Your task to perform on an android device: Go to Wikipedia Image 0: 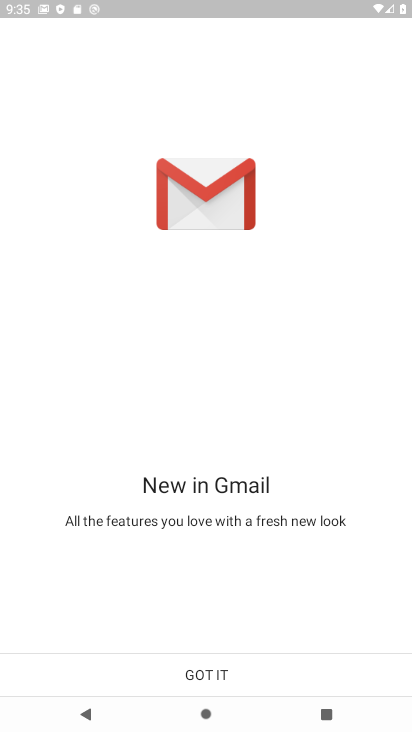
Step 0: press home button
Your task to perform on an android device: Go to Wikipedia Image 1: 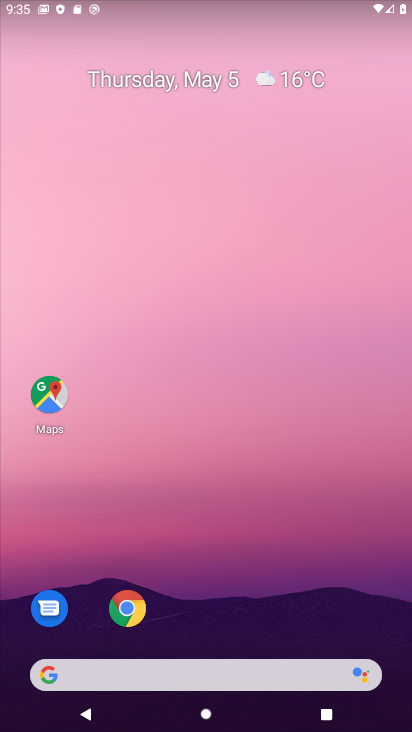
Step 1: drag from (267, 592) to (269, 104)
Your task to perform on an android device: Go to Wikipedia Image 2: 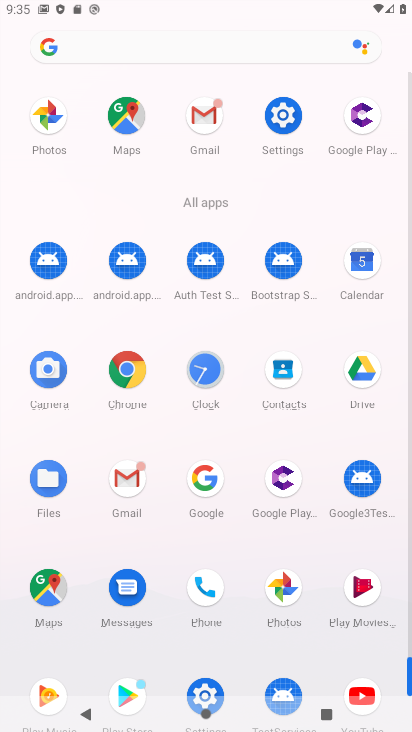
Step 2: click (118, 369)
Your task to perform on an android device: Go to Wikipedia Image 3: 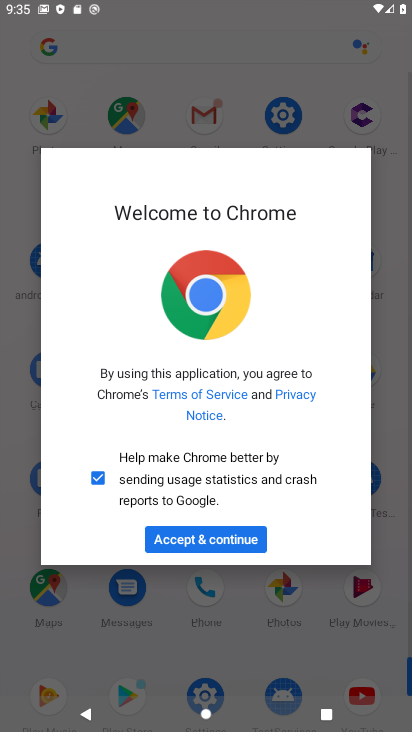
Step 3: click (229, 539)
Your task to perform on an android device: Go to Wikipedia Image 4: 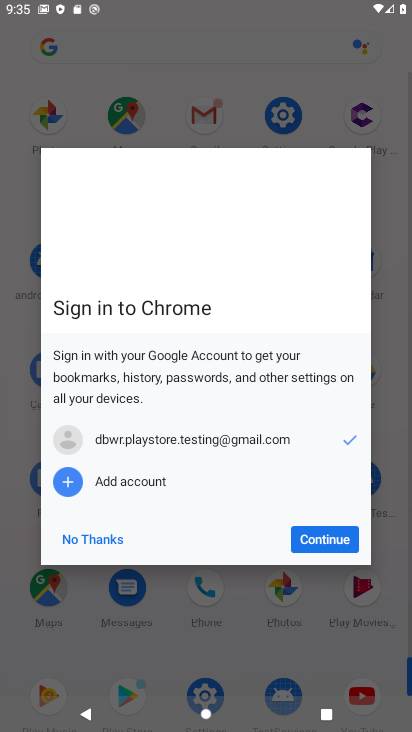
Step 4: click (325, 545)
Your task to perform on an android device: Go to Wikipedia Image 5: 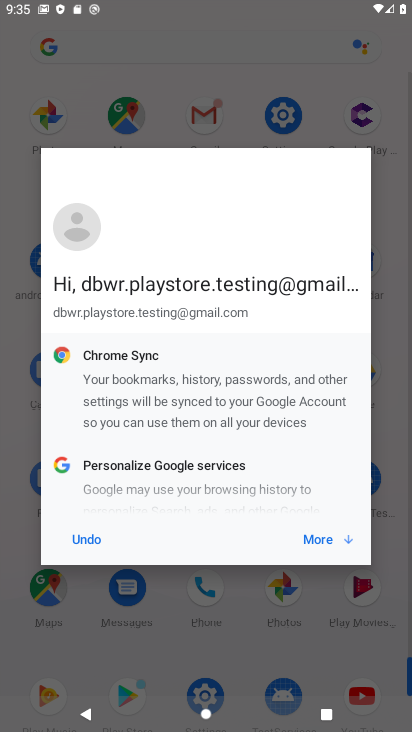
Step 5: click (315, 532)
Your task to perform on an android device: Go to Wikipedia Image 6: 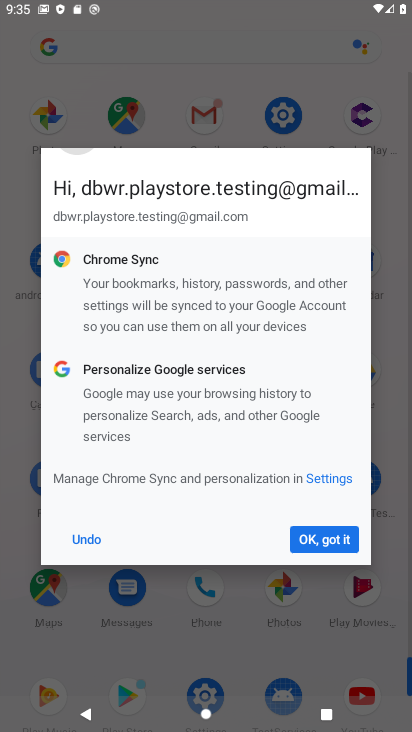
Step 6: click (315, 532)
Your task to perform on an android device: Go to Wikipedia Image 7: 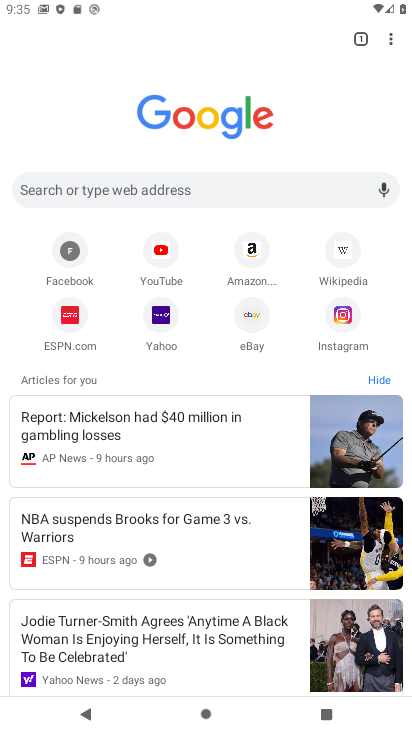
Step 7: click (341, 254)
Your task to perform on an android device: Go to Wikipedia Image 8: 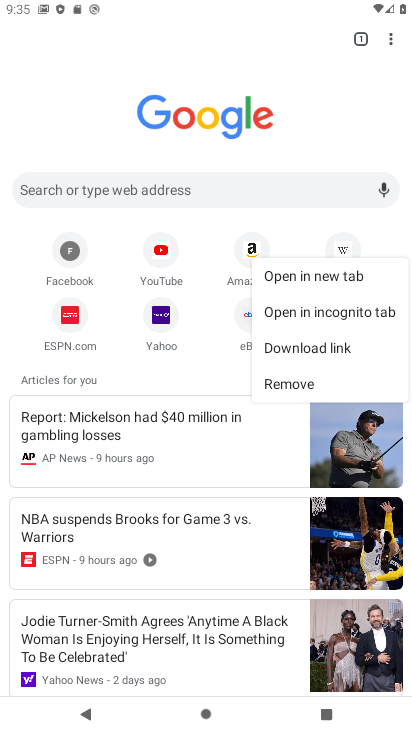
Step 8: click (357, 151)
Your task to perform on an android device: Go to Wikipedia Image 9: 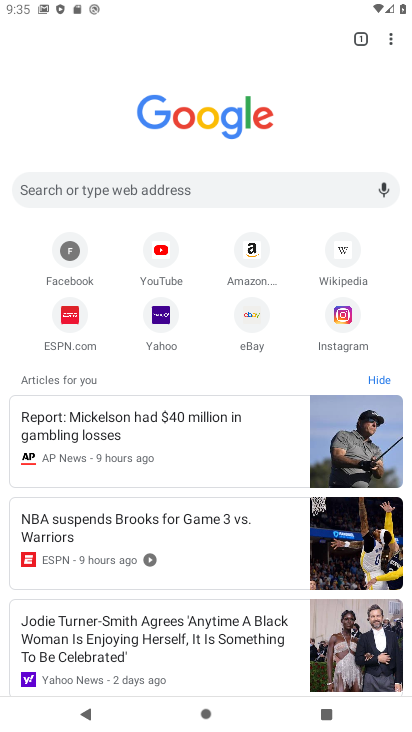
Step 9: click (341, 258)
Your task to perform on an android device: Go to Wikipedia Image 10: 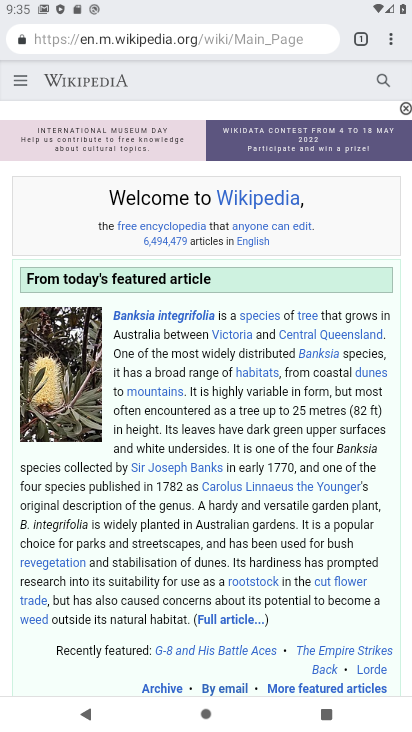
Step 10: task complete